Your task to perform on an android device: Look up the top rated 18v miter saw on Home Depot. Image 0: 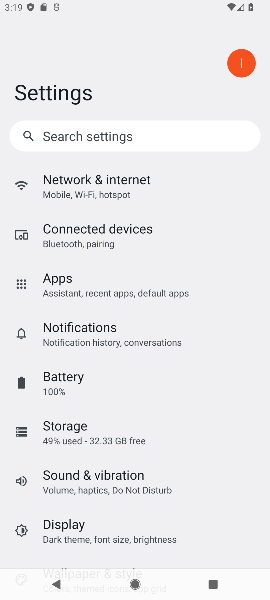
Step 0: press home button
Your task to perform on an android device: Look up the top rated 18v miter saw on Home Depot. Image 1: 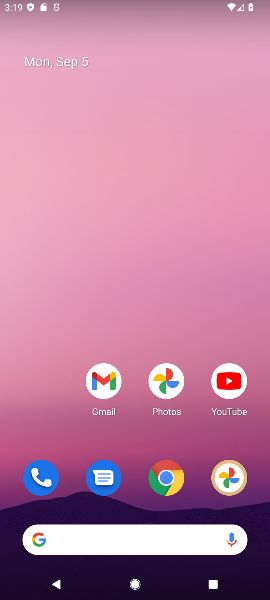
Step 1: drag from (149, 513) to (169, 77)
Your task to perform on an android device: Look up the top rated 18v miter saw on Home Depot. Image 2: 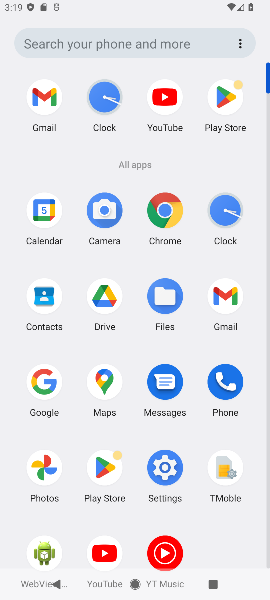
Step 2: click (167, 216)
Your task to perform on an android device: Look up the top rated 18v miter saw on Home Depot. Image 3: 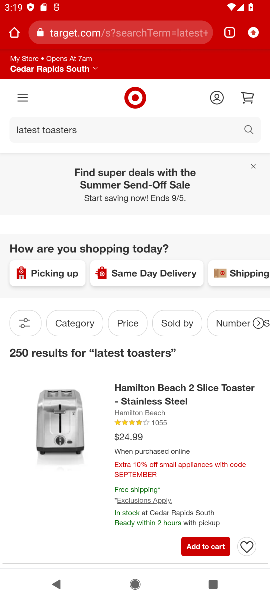
Step 3: click (172, 35)
Your task to perform on an android device: Look up the top rated 18v miter saw on Home Depot. Image 4: 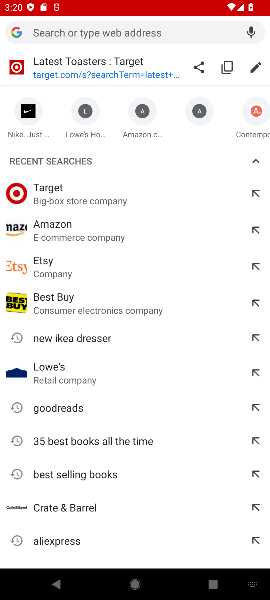
Step 4: type "home depot"
Your task to perform on an android device: Look up the top rated 18v miter saw on Home Depot. Image 5: 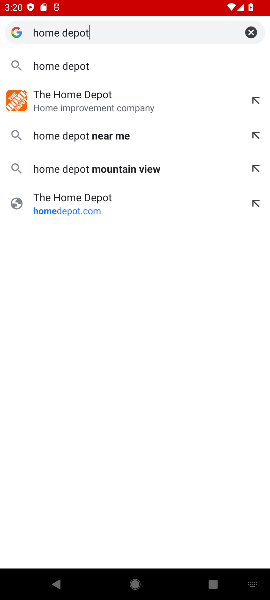
Step 5: click (117, 103)
Your task to perform on an android device: Look up the top rated 18v miter saw on Home Depot. Image 6: 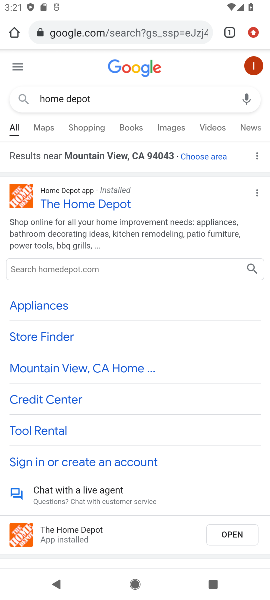
Step 6: click (90, 204)
Your task to perform on an android device: Look up the top rated 18v miter saw on Home Depot. Image 7: 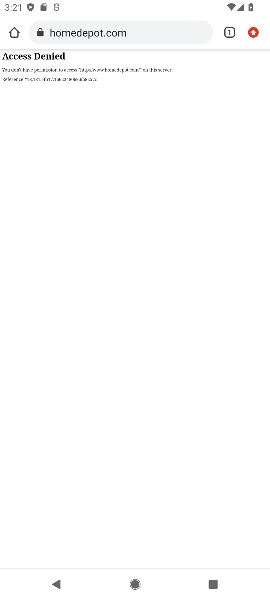
Step 7: task complete